Your task to perform on an android device: Open Yahoo.com Image 0: 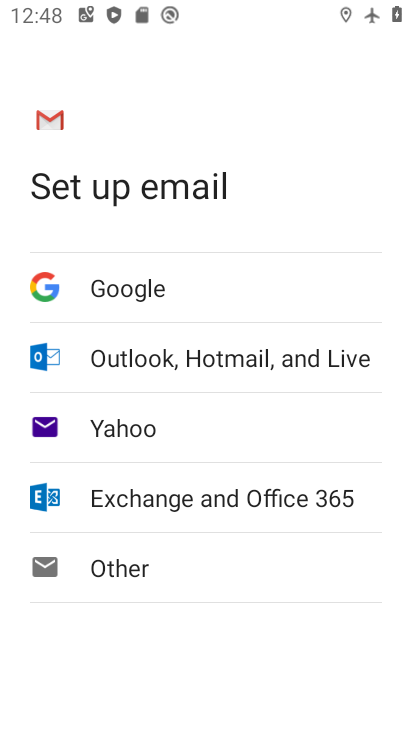
Step 0: press home button
Your task to perform on an android device: Open Yahoo.com Image 1: 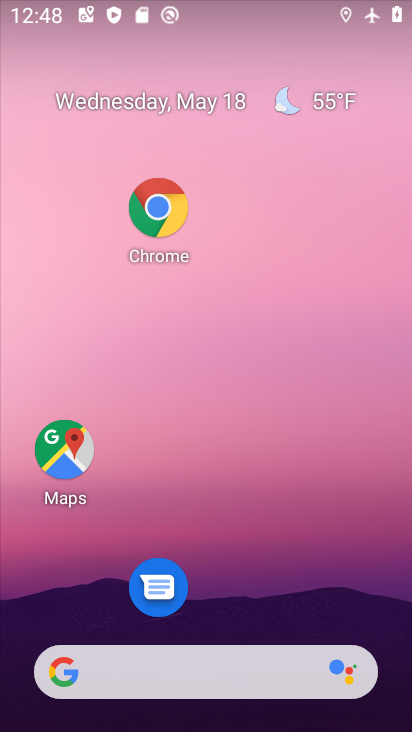
Step 1: drag from (219, 591) to (157, 123)
Your task to perform on an android device: Open Yahoo.com Image 2: 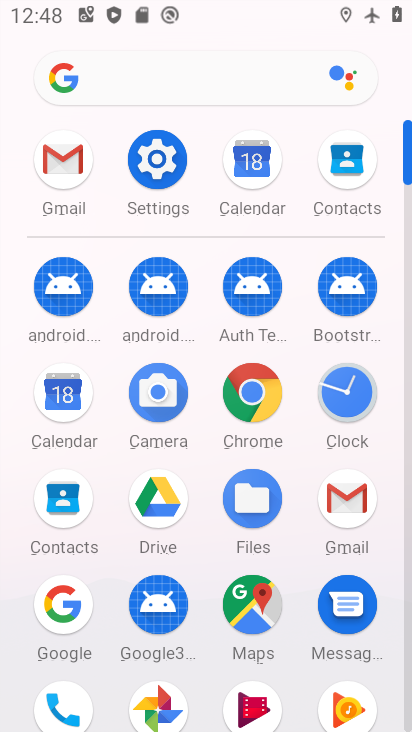
Step 2: click (245, 439)
Your task to perform on an android device: Open Yahoo.com Image 3: 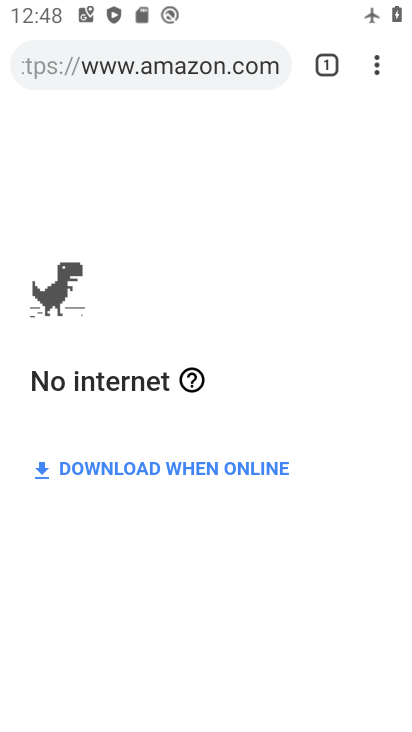
Step 3: task complete